Your task to perform on an android device: See recent photos Image 0: 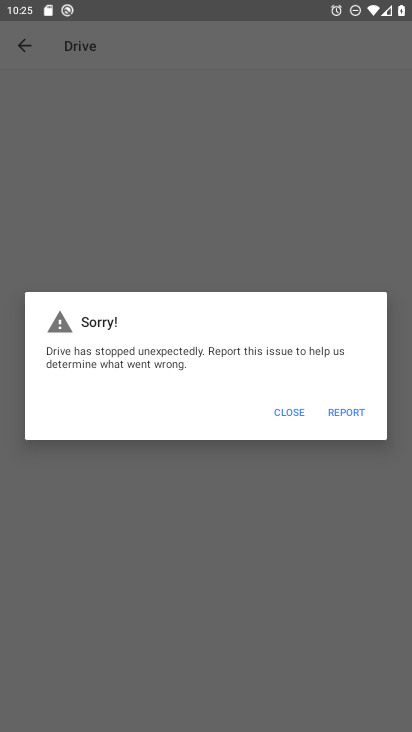
Step 0: drag from (173, 565) to (203, 278)
Your task to perform on an android device: See recent photos Image 1: 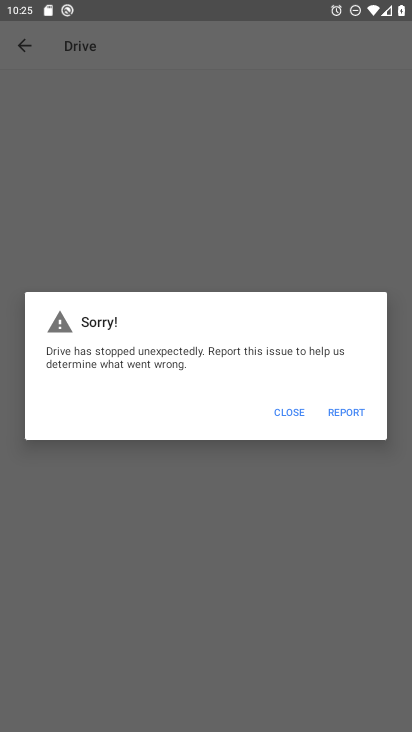
Step 1: press home button
Your task to perform on an android device: See recent photos Image 2: 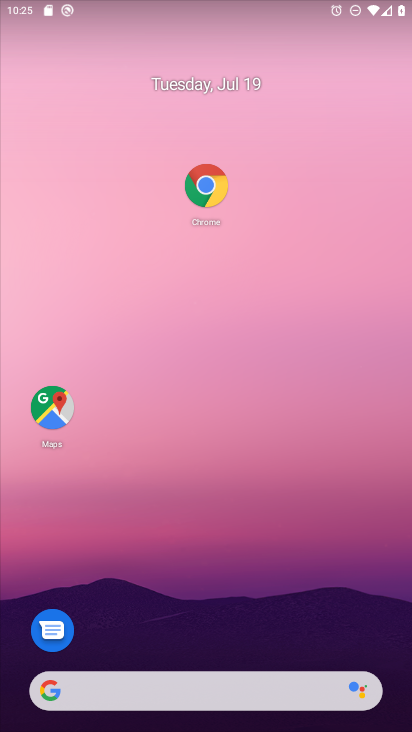
Step 2: drag from (193, 656) to (199, 311)
Your task to perform on an android device: See recent photos Image 3: 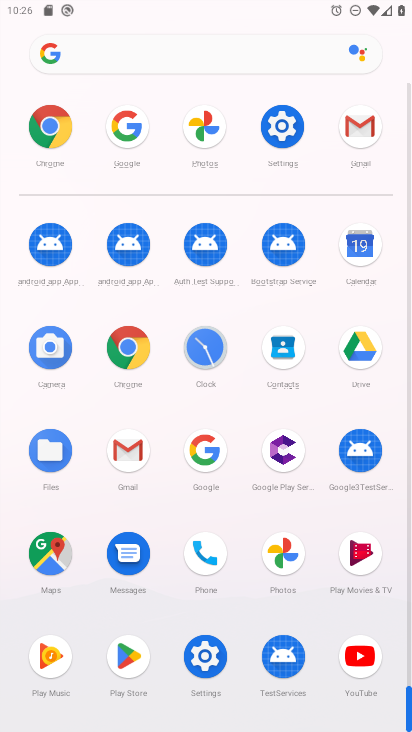
Step 3: click (279, 562)
Your task to perform on an android device: See recent photos Image 4: 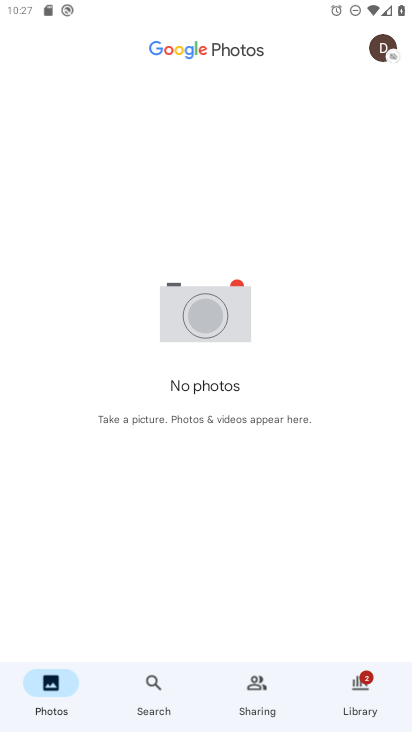
Step 4: task complete